Your task to perform on an android device: change the clock style Image 0: 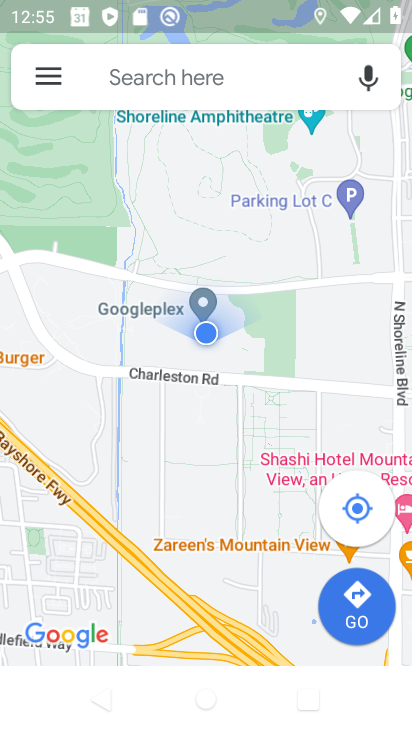
Step 0: press back button
Your task to perform on an android device: change the clock style Image 1: 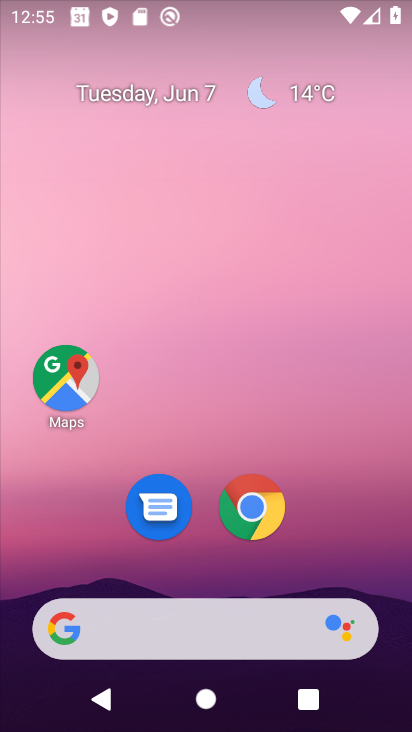
Step 1: drag from (194, 569) to (264, 5)
Your task to perform on an android device: change the clock style Image 2: 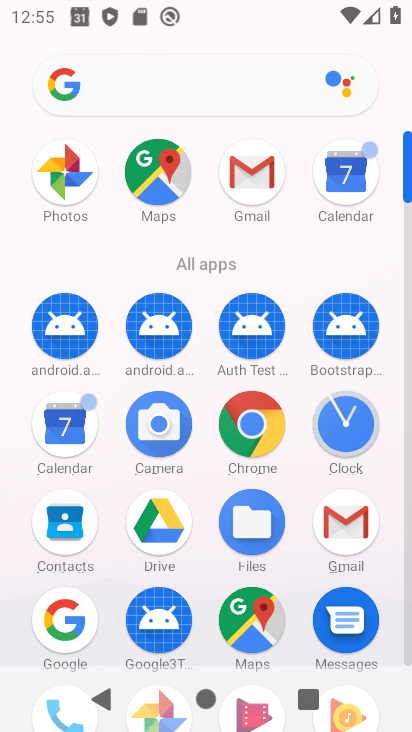
Step 2: click (352, 427)
Your task to perform on an android device: change the clock style Image 3: 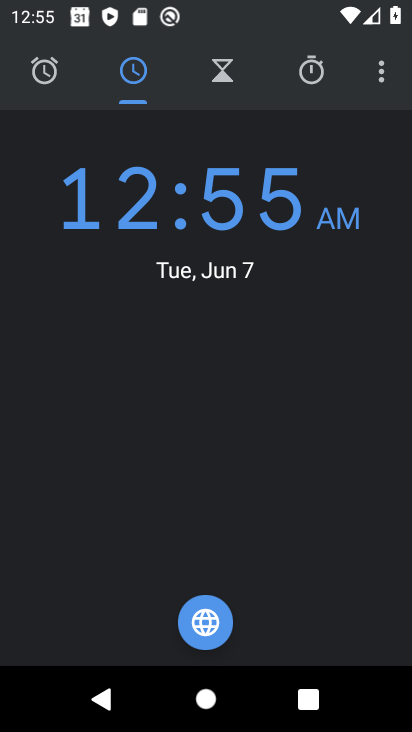
Step 3: click (385, 63)
Your task to perform on an android device: change the clock style Image 4: 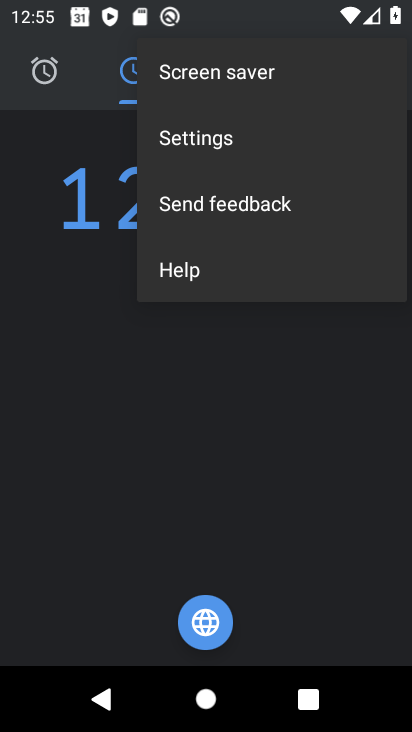
Step 4: click (250, 138)
Your task to perform on an android device: change the clock style Image 5: 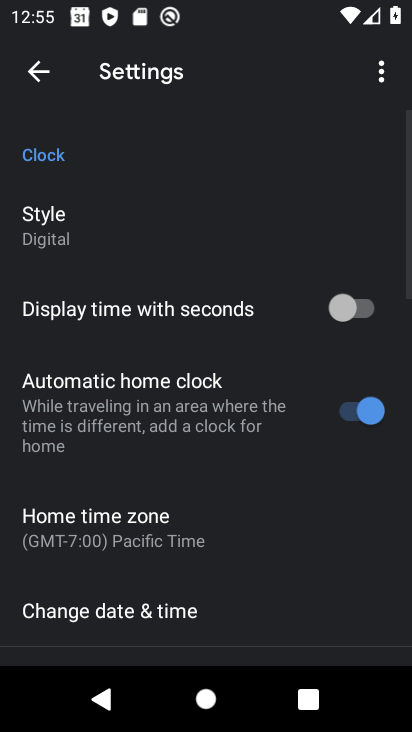
Step 5: click (65, 236)
Your task to perform on an android device: change the clock style Image 6: 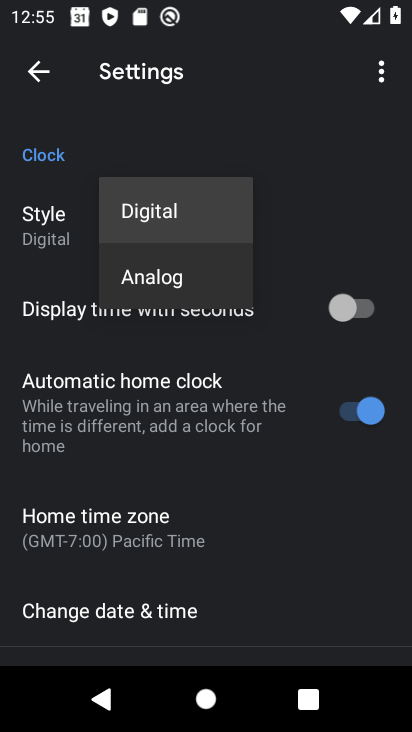
Step 6: click (163, 284)
Your task to perform on an android device: change the clock style Image 7: 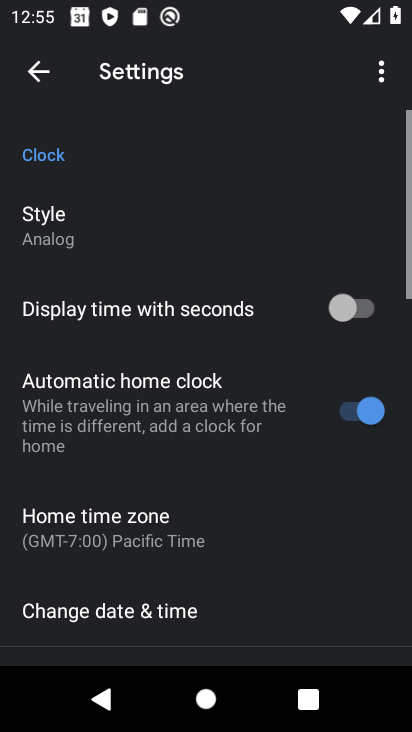
Step 7: task complete